Your task to perform on an android device: Go to Google maps Image 0: 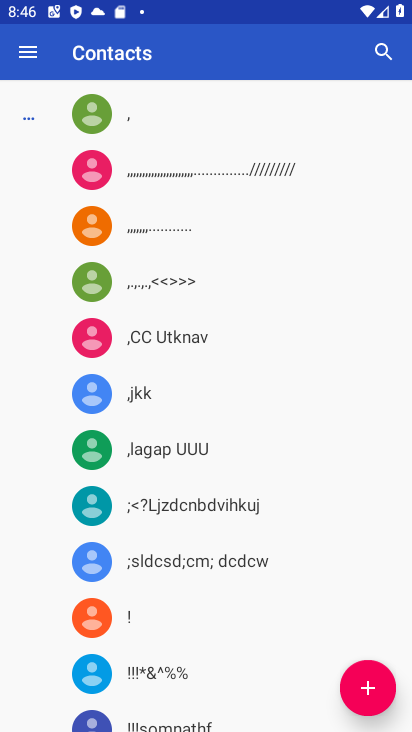
Step 0: press home button
Your task to perform on an android device: Go to Google maps Image 1: 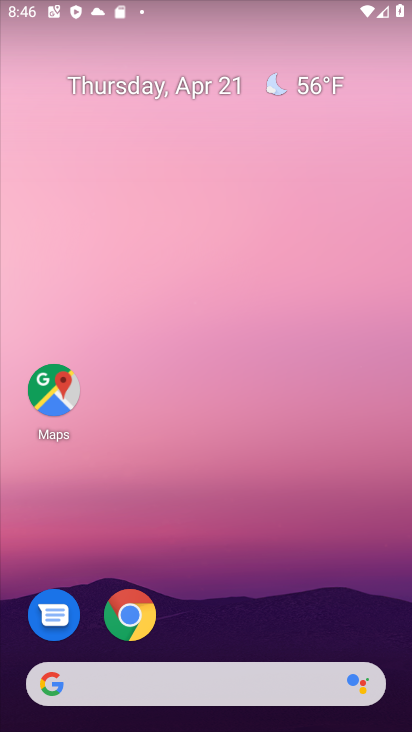
Step 1: click (55, 392)
Your task to perform on an android device: Go to Google maps Image 2: 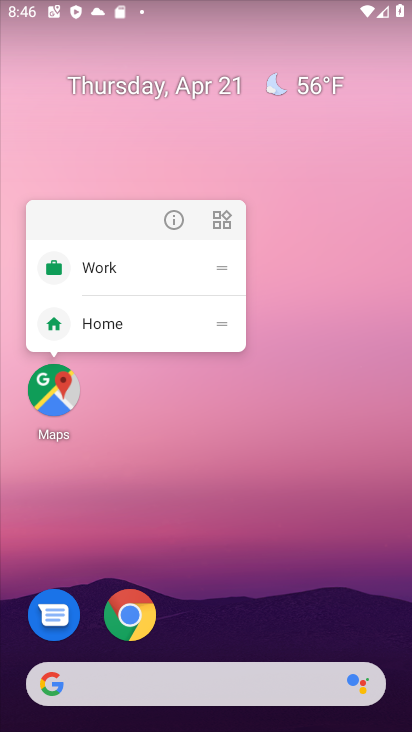
Step 2: click (186, 432)
Your task to perform on an android device: Go to Google maps Image 3: 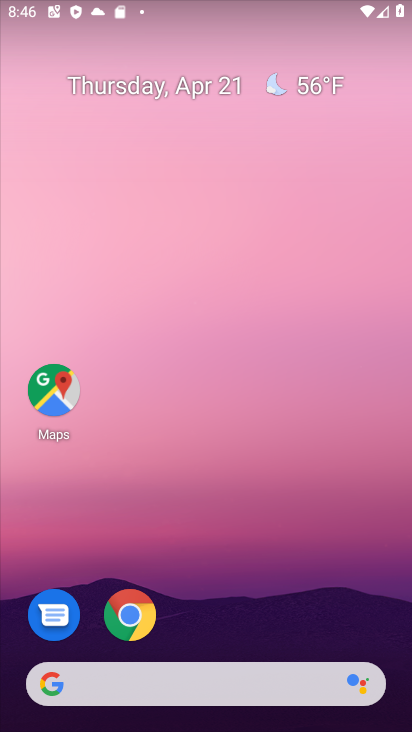
Step 3: click (52, 395)
Your task to perform on an android device: Go to Google maps Image 4: 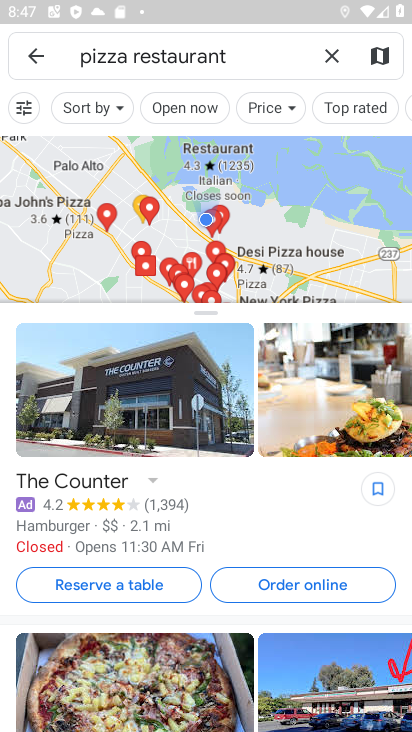
Step 4: task complete